Your task to perform on an android device: remove spam from my inbox in the gmail app Image 0: 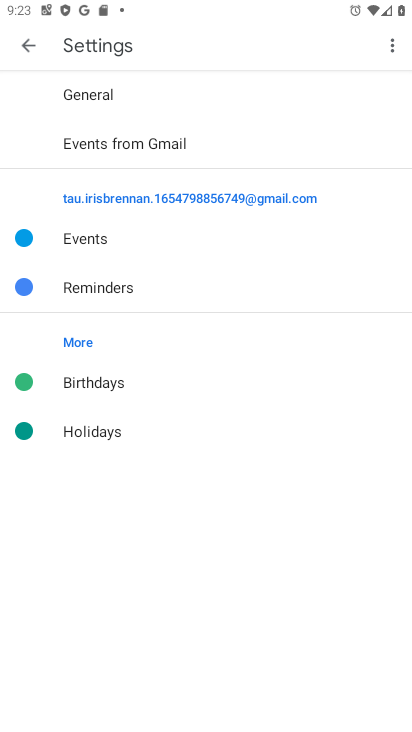
Step 0: press home button
Your task to perform on an android device: remove spam from my inbox in the gmail app Image 1: 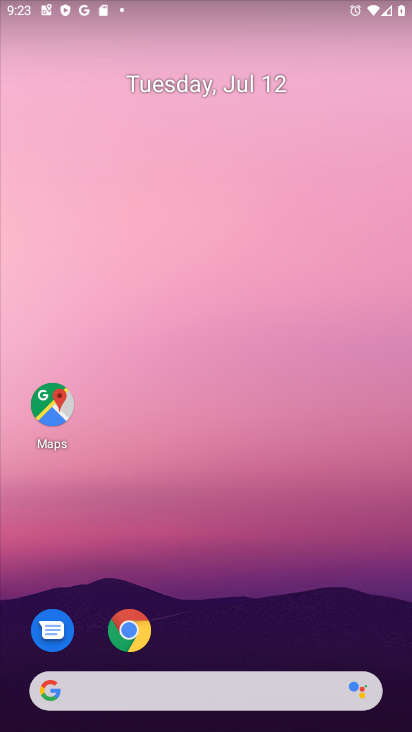
Step 1: drag from (199, 616) to (181, 84)
Your task to perform on an android device: remove spam from my inbox in the gmail app Image 2: 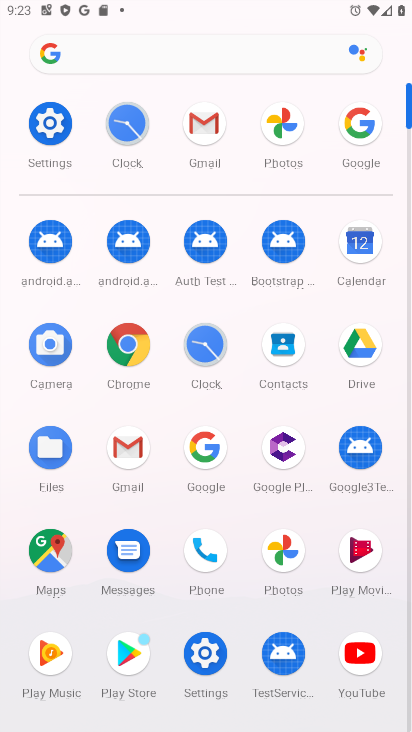
Step 2: click (200, 129)
Your task to perform on an android device: remove spam from my inbox in the gmail app Image 3: 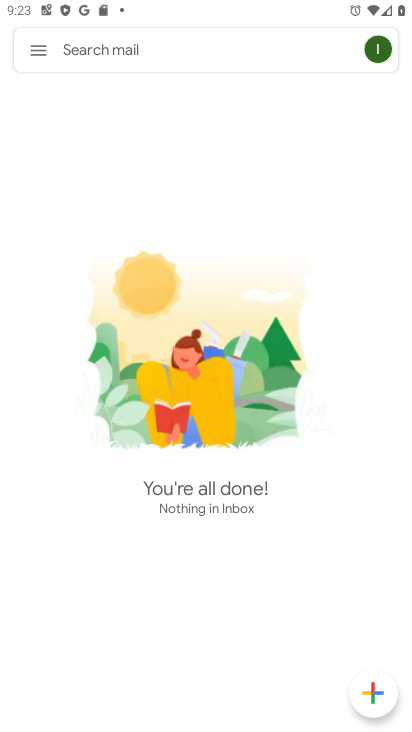
Step 3: click (40, 54)
Your task to perform on an android device: remove spam from my inbox in the gmail app Image 4: 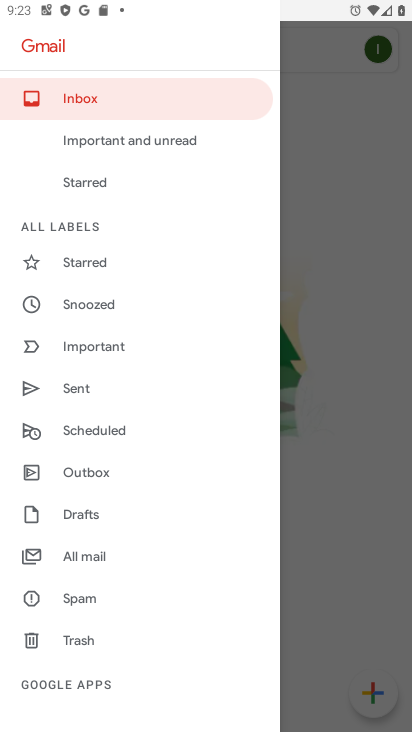
Step 4: click (279, 109)
Your task to perform on an android device: remove spam from my inbox in the gmail app Image 5: 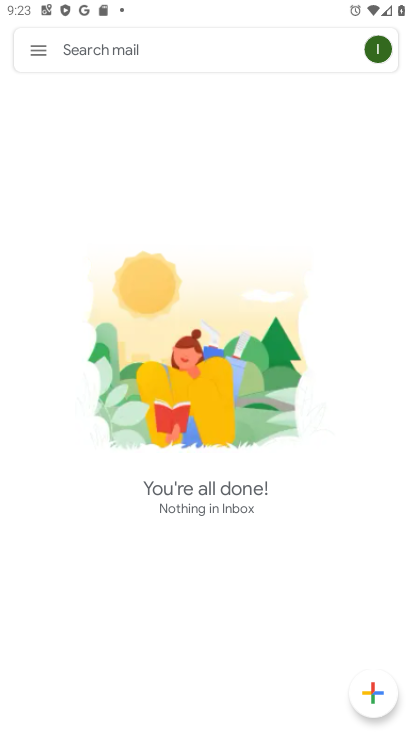
Step 5: task complete